Your task to perform on an android device: Open Google Image 0: 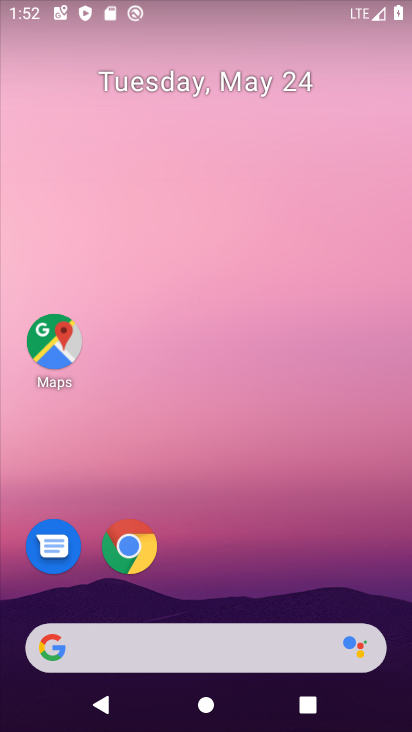
Step 0: click (378, 218)
Your task to perform on an android device: Open Google Image 1: 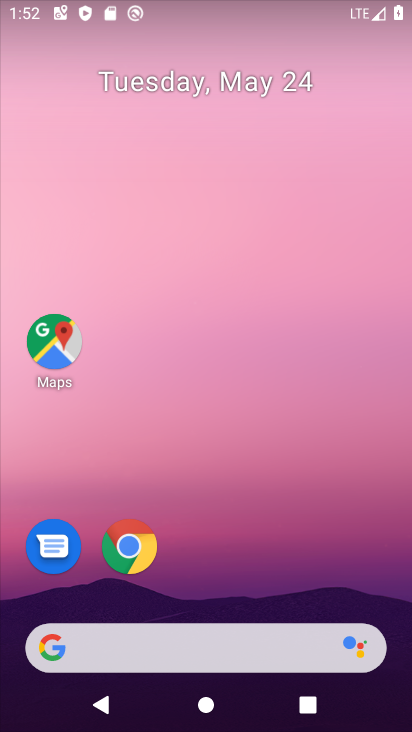
Step 1: drag from (207, 576) to (282, 46)
Your task to perform on an android device: Open Google Image 2: 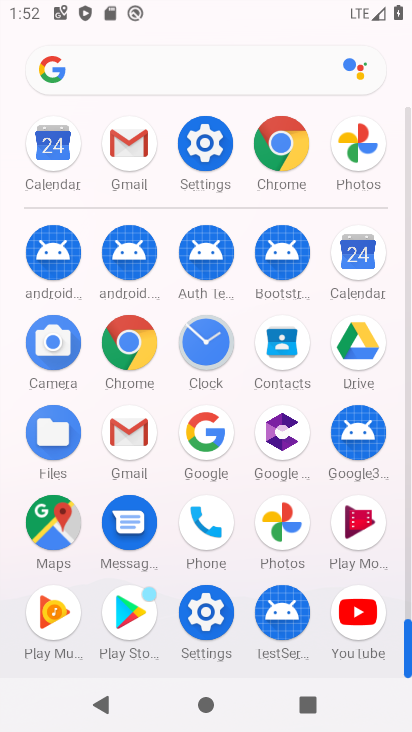
Step 2: click (207, 446)
Your task to perform on an android device: Open Google Image 3: 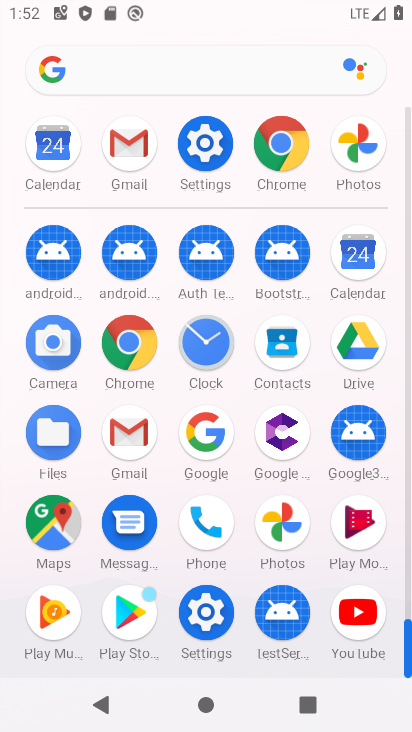
Step 3: click (207, 446)
Your task to perform on an android device: Open Google Image 4: 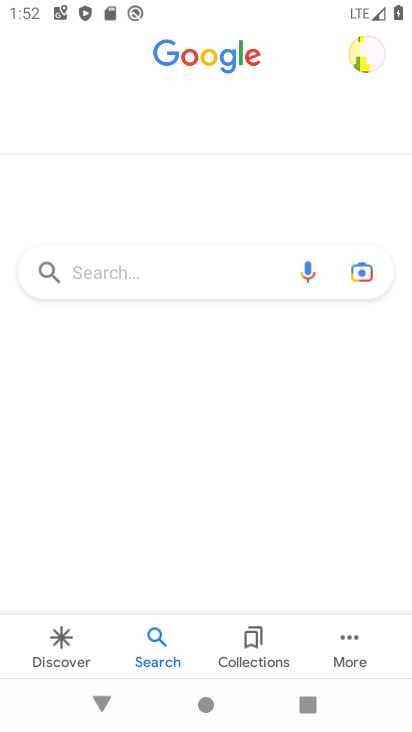
Step 4: drag from (236, 497) to (259, 356)
Your task to perform on an android device: Open Google Image 5: 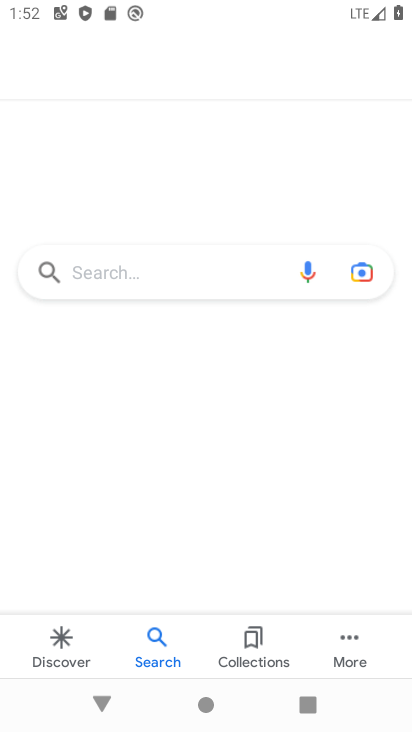
Step 5: drag from (301, 176) to (348, 418)
Your task to perform on an android device: Open Google Image 6: 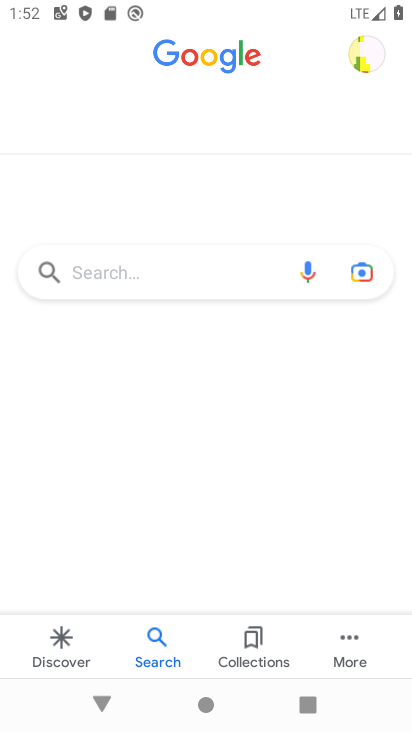
Step 6: click (353, 650)
Your task to perform on an android device: Open Google Image 7: 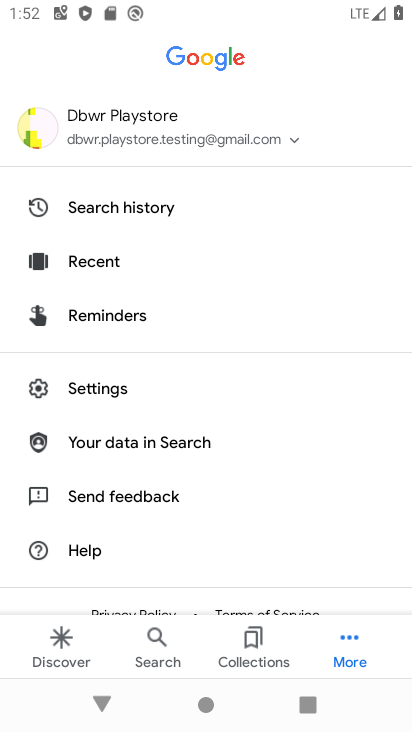
Step 7: click (349, 645)
Your task to perform on an android device: Open Google Image 8: 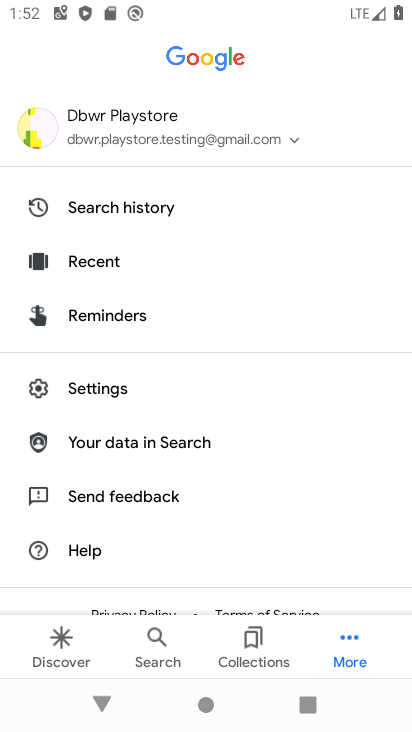
Step 8: click (51, 641)
Your task to perform on an android device: Open Google Image 9: 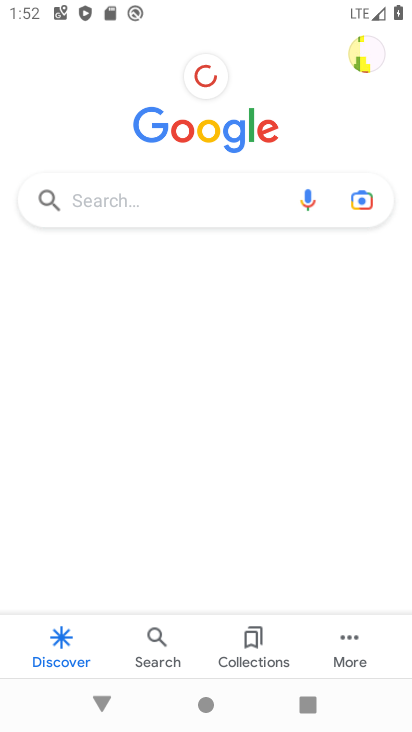
Step 9: task complete